Your task to perform on an android device: Search for Italian restaurants on Maps Image 0: 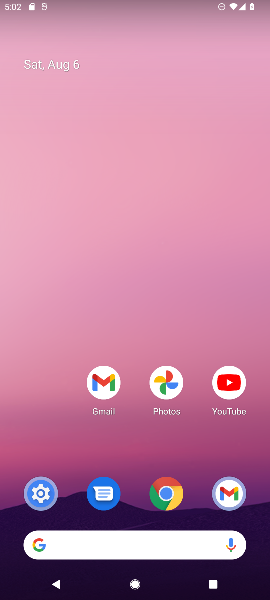
Step 0: drag from (144, 431) to (90, 99)
Your task to perform on an android device: Search for Italian restaurants on Maps Image 1: 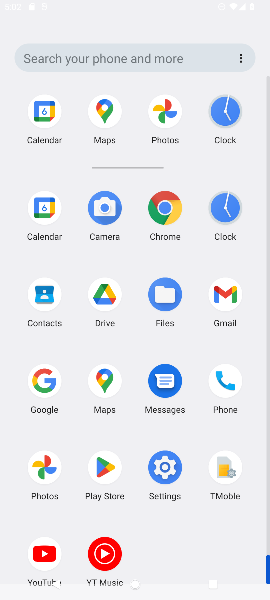
Step 1: drag from (141, 326) to (32, 6)
Your task to perform on an android device: Search for Italian restaurants on Maps Image 2: 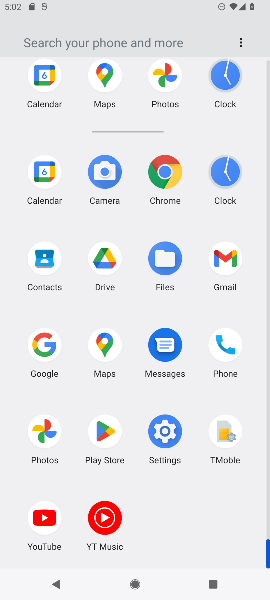
Step 2: click (113, 342)
Your task to perform on an android device: Search for Italian restaurants on Maps Image 3: 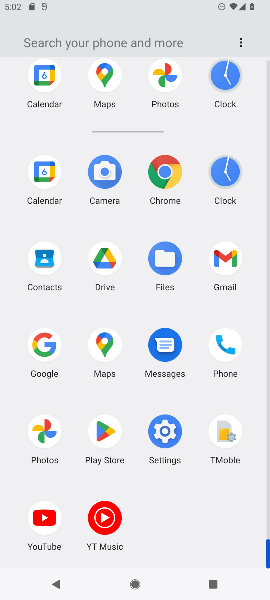
Step 3: click (105, 348)
Your task to perform on an android device: Search for Italian restaurants on Maps Image 4: 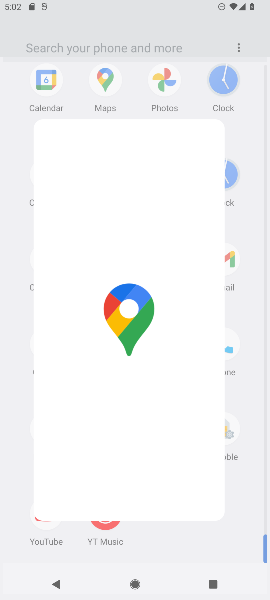
Step 4: click (96, 358)
Your task to perform on an android device: Search for Italian restaurants on Maps Image 5: 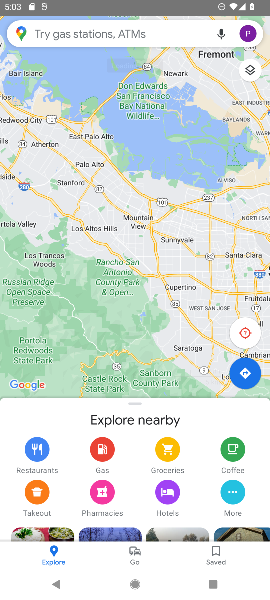
Step 5: click (54, 32)
Your task to perform on an android device: Search for Italian restaurants on Maps Image 6: 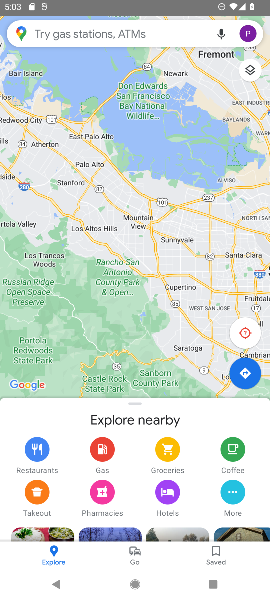
Step 6: click (53, 33)
Your task to perform on an android device: Search for Italian restaurants on Maps Image 7: 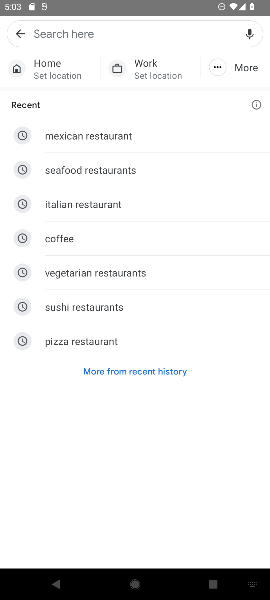
Step 7: click (108, 199)
Your task to perform on an android device: Search for Italian restaurants on Maps Image 8: 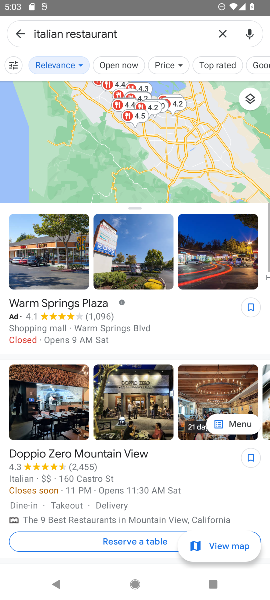
Step 8: task complete